Your task to perform on an android device: Go to calendar. Show me events next week Image 0: 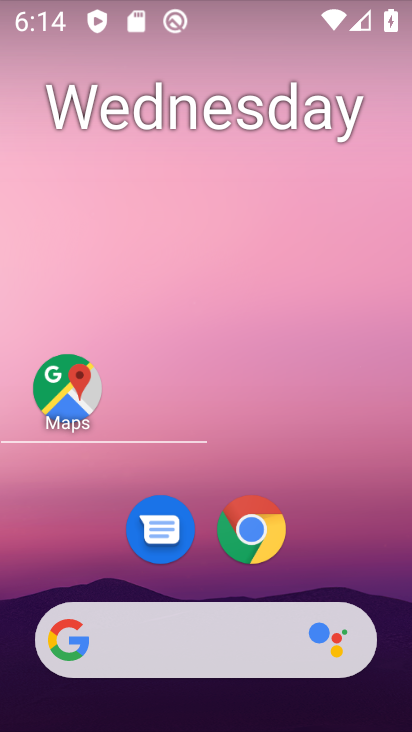
Step 0: click (203, 192)
Your task to perform on an android device: Go to calendar. Show me events next week Image 1: 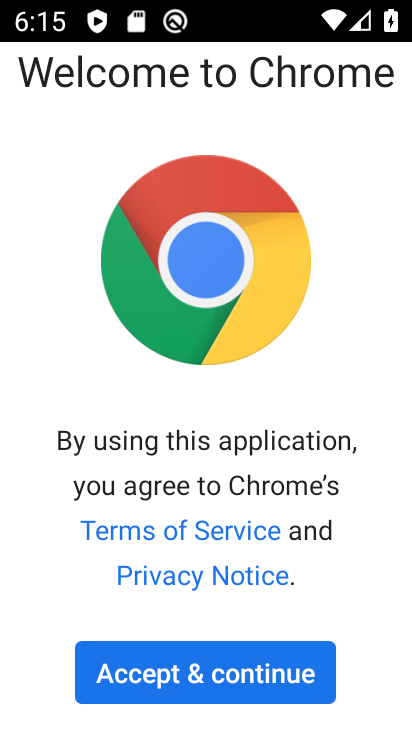
Step 1: press home button
Your task to perform on an android device: Go to calendar. Show me events next week Image 2: 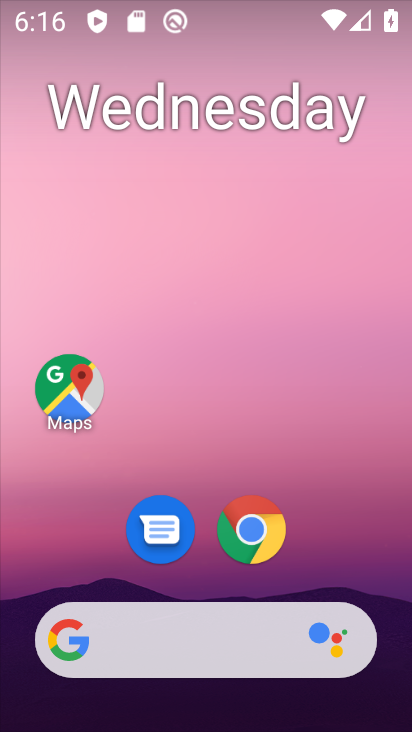
Step 2: drag from (237, 598) to (240, 239)
Your task to perform on an android device: Go to calendar. Show me events next week Image 3: 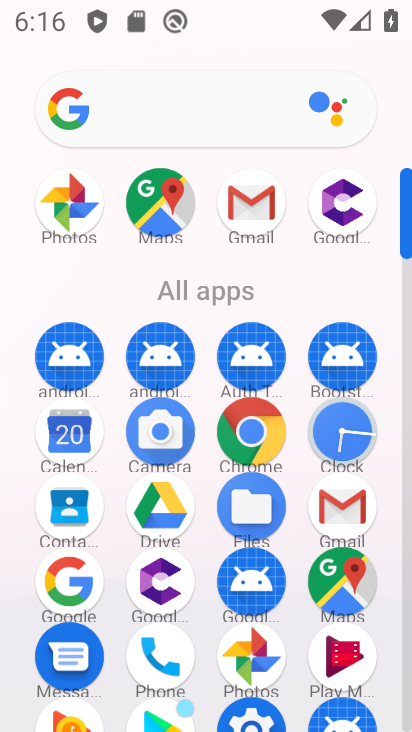
Step 3: click (73, 433)
Your task to perform on an android device: Go to calendar. Show me events next week Image 4: 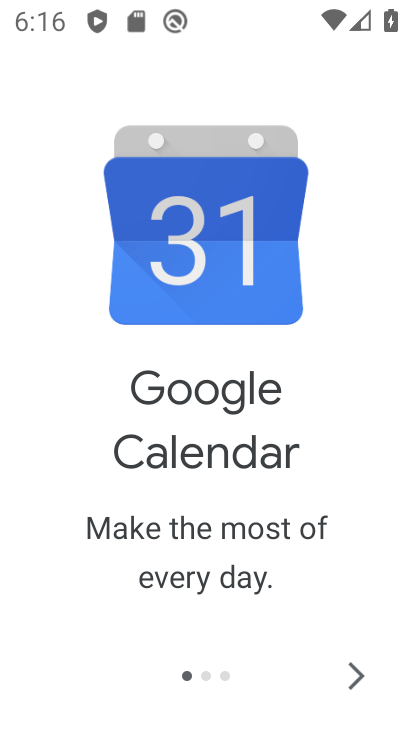
Step 4: click (353, 678)
Your task to perform on an android device: Go to calendar. Show me events next week Image 5: 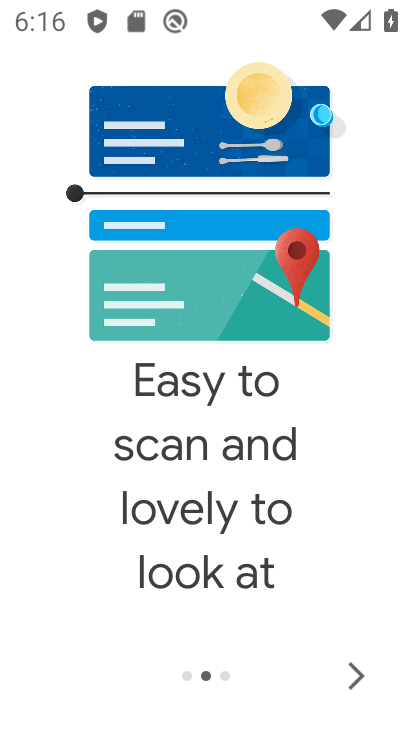
Step 5: click (353, 678)
Your task to perform on an android device: Go to calendar. Show me events next week Image 6: 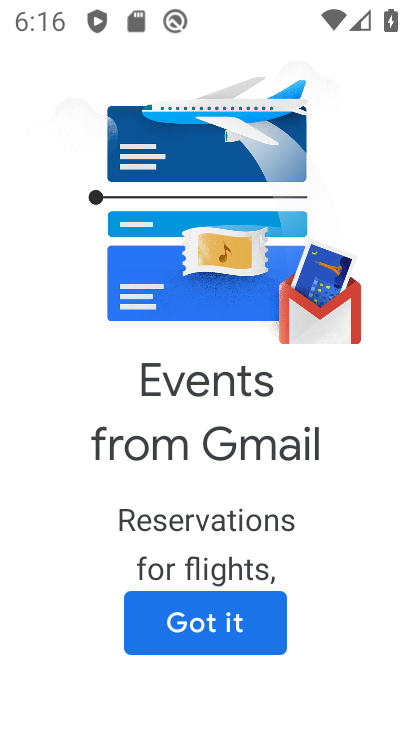
Step 6: click (231, 608)
Your task to perform on an android device: Go to calendar. Show me events next week Image 7: 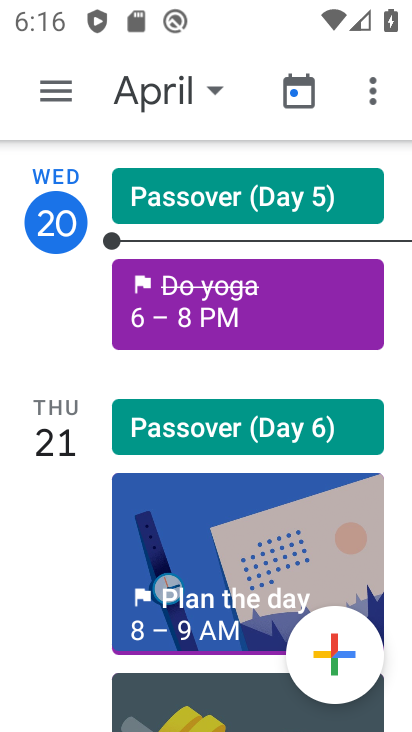
Step 7: click (186, 84)
Your task to perform on an android device: Go to calendar. Show me events next week Image 8: 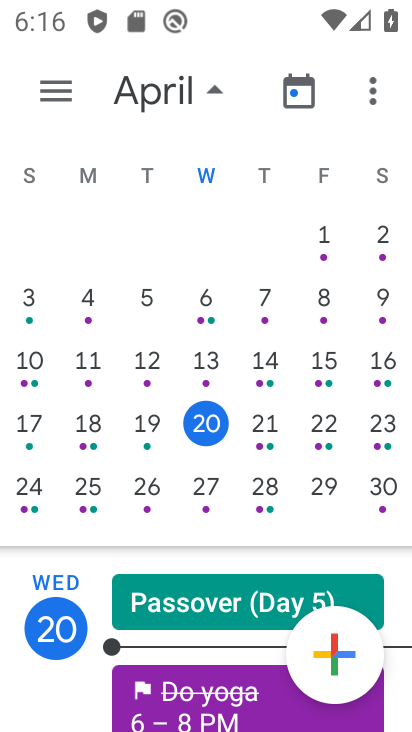
Step 8: click (34, 485)
Your task to perform on an android device: Go to calendar. Show me events next week Image 9: 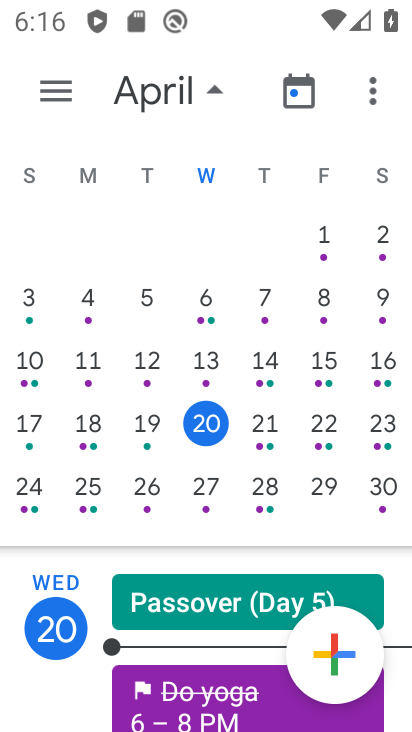
Step 9: click (38, 487)
Your task to perform on an android device: Go to calendar. Show me events next week Image 10: 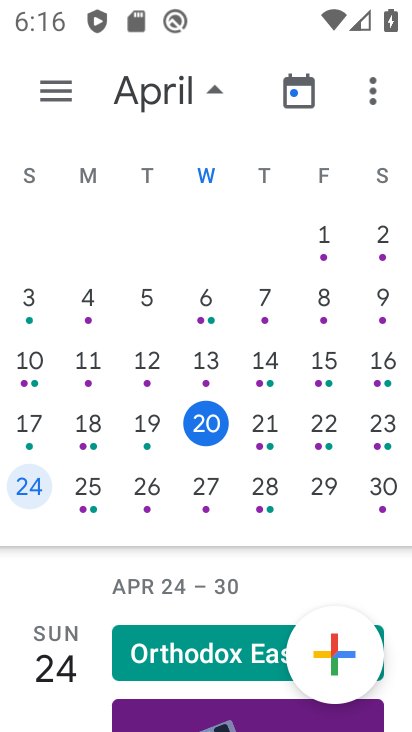
Step 10: task complete